Your task to perform on an android device: turn off notifications settings in the gmail app Image 0: 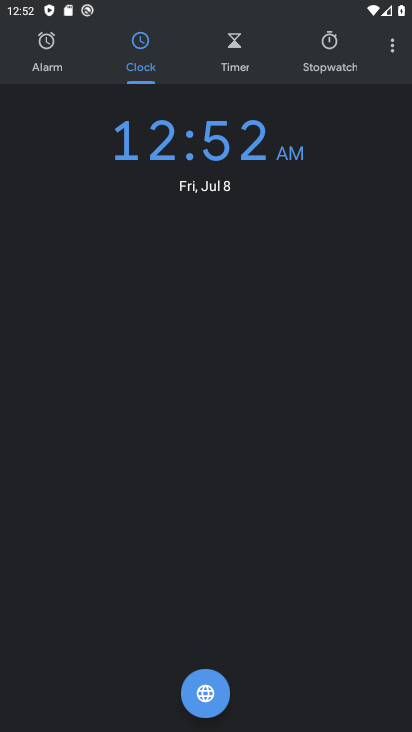
Step 0: press home button
Your task to perform on an android device: turn off notifications settings in the gmail app Image 1: 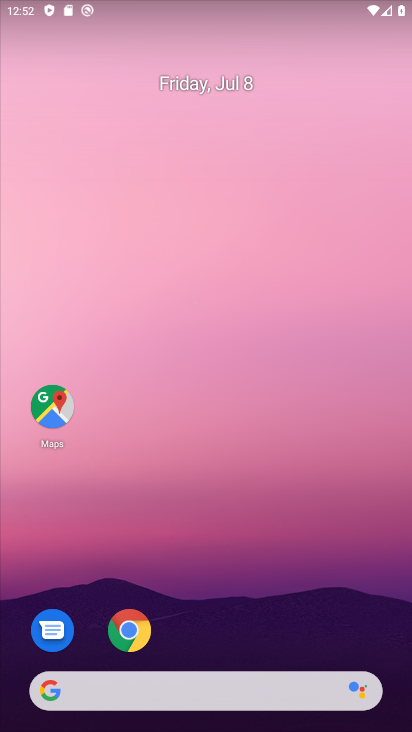
Step 1: drag from (217, 563) to (305, 122)
Your task to perform on an android device: turn off notifications settings in the gmail app Image 2: 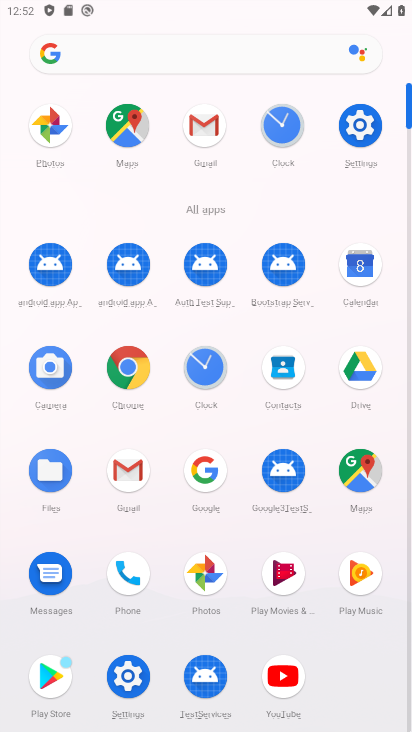
Step 2: click (122, 471)
Your task to perform on an android device: turn off notifications settings in the gmail app Image 3: 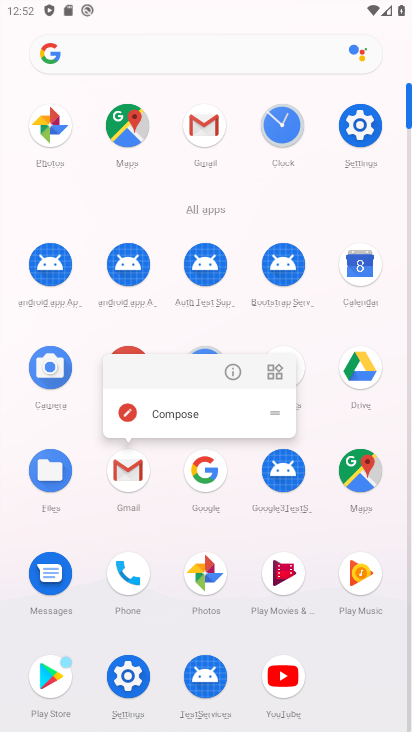
Step 3: click (126, 483)
Your task to perform on an android device: turn off notifications settings in the gmail app Image 4: 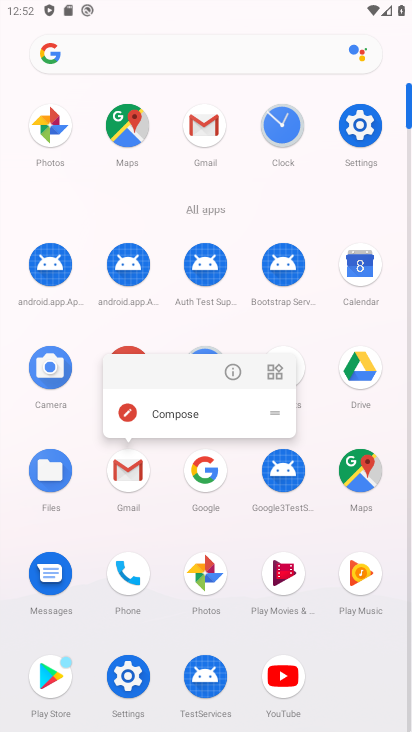
Step 4: click (131, 488)
Your task to perform on an android device: turn off notifications settings in the gmail app Image 5: 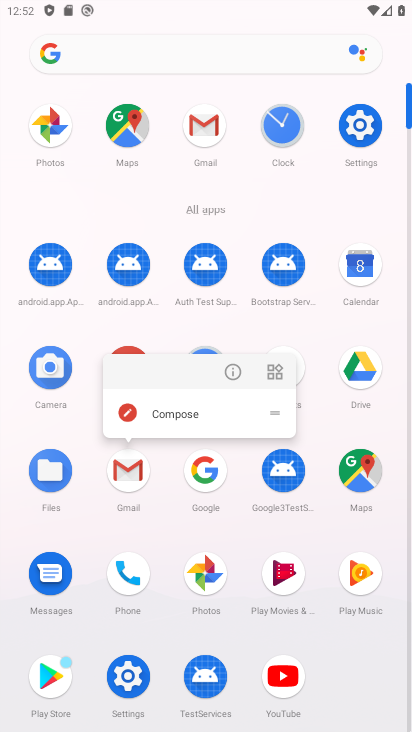
Step 5: click (129, 467)
Your task to perform on an android device: turn off notifications settings in the gmail app Image 6: 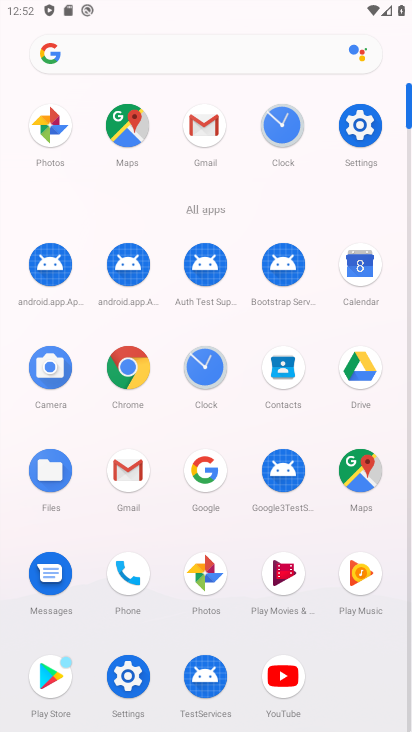
Step 6: click (129, 472)
Your task to perform on an android device: turn off notifications settings in the gmail app Image 7: 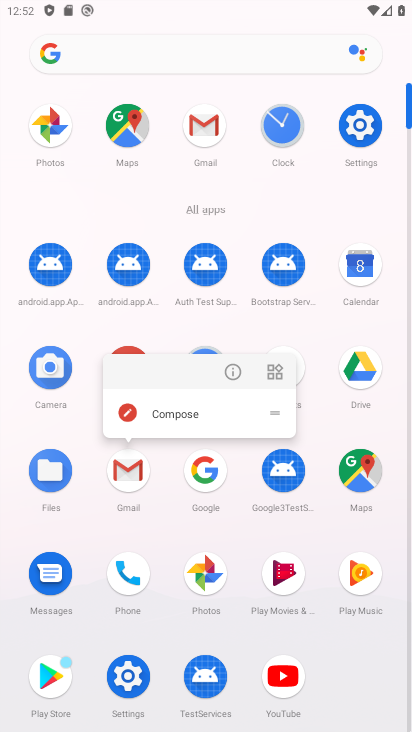
Step 7: click (128, 475)
Your task to perform on an android device: turn off notifications settings in the gmail app Image 8: 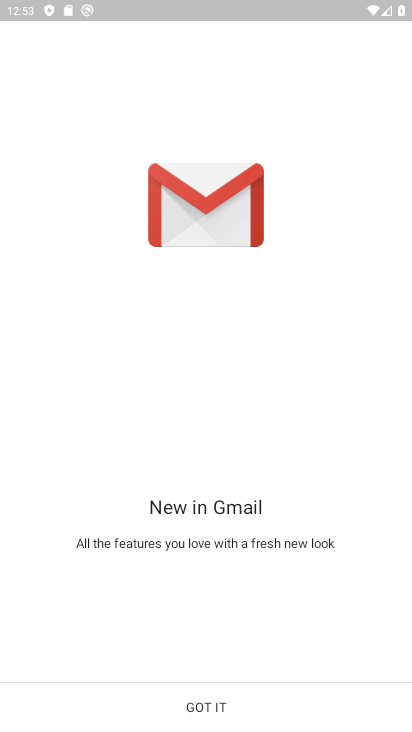
Step 8: click (226, 710)
Your task to perform on an android device: turn off notifications settings in the gmail app Image 9: 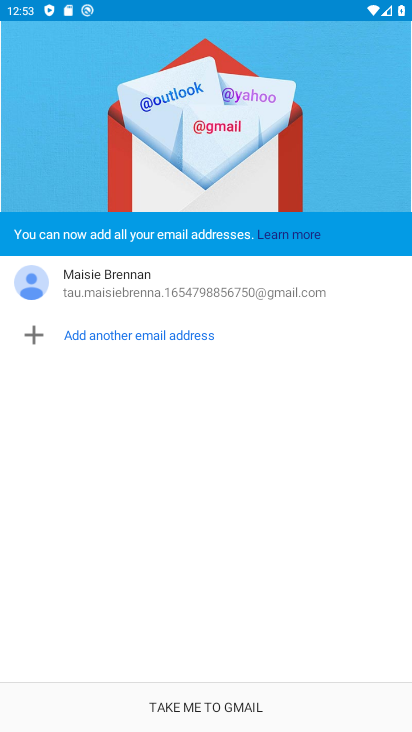
Step 9: click (226, 710)
Your task to perform on an android device: turn off notifications settings in the gmail app Image 10: 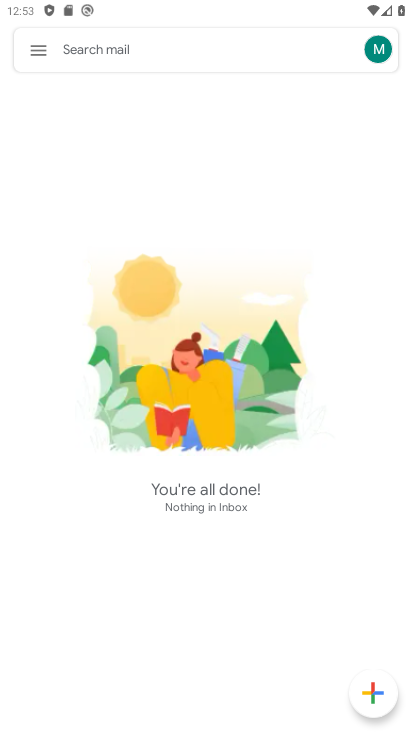
Step 10: click (48, 51)
Your task to perform on an android device: turn off notifications settings in the gmail app Image 11: 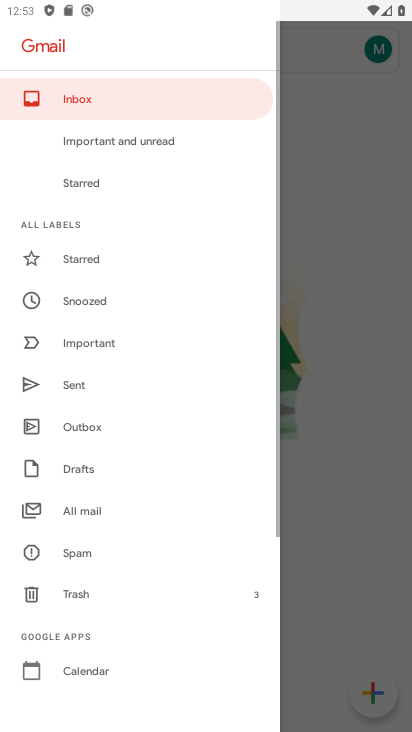
Step 11: drag from (93, 535) to (198, 219)
Your task to perform on an android device: turn off notifications settings in the gmail app Image 12: 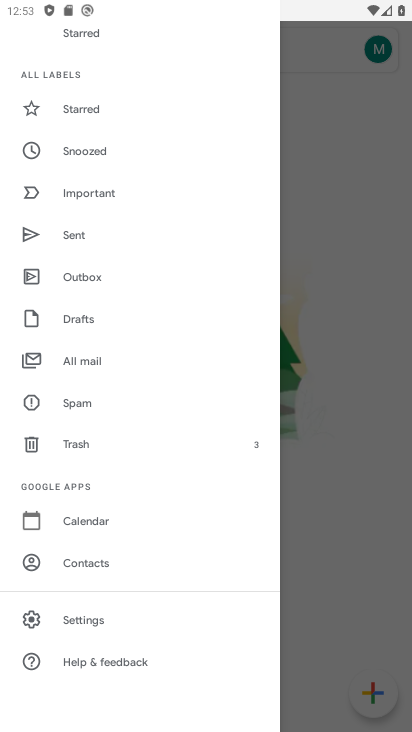
Step 12: click (107, 621)
Your task to perform on an android device: turn off notifications settings in the gmail app Image 13: 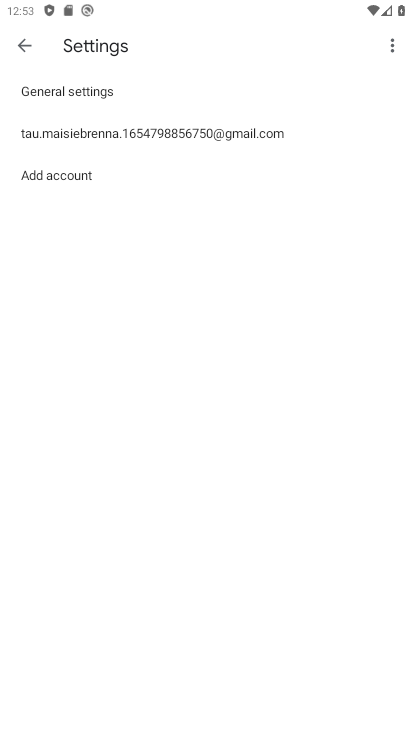
Step 13: click (261, 139)
Your task to perform on an android device: turn off notifications settings in the gmail app Image 14: 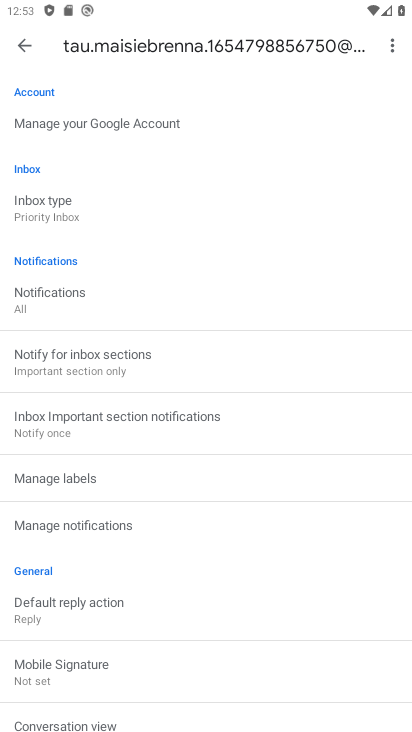
Step 14: click (139, 532)
Your task to perform on an android device: turn off notifications settings in the gmail app Image 15: 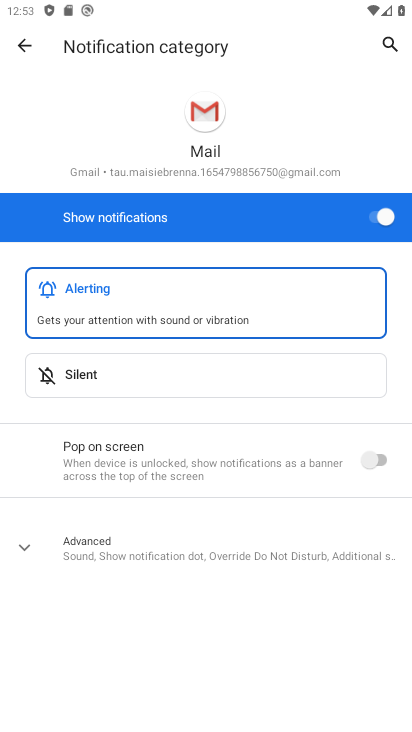
Step 15: click (372, 220)
Your task to perform on an android device: turn off notifications settings in the gmail app Image 16: 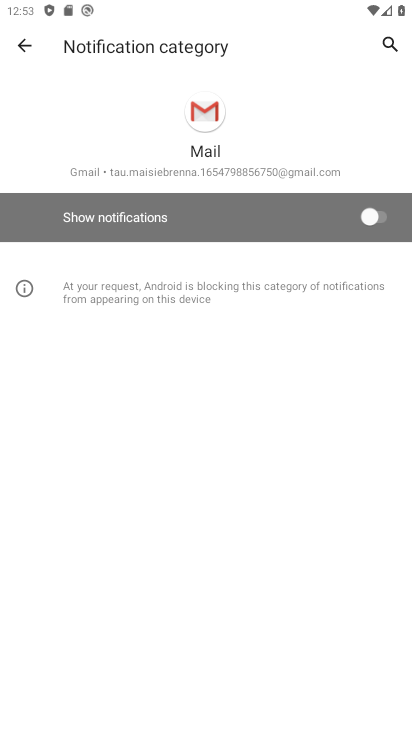
Step 16: task complete